Your task to perform on an android device: manage bookmarks in the chrome app Image 0: 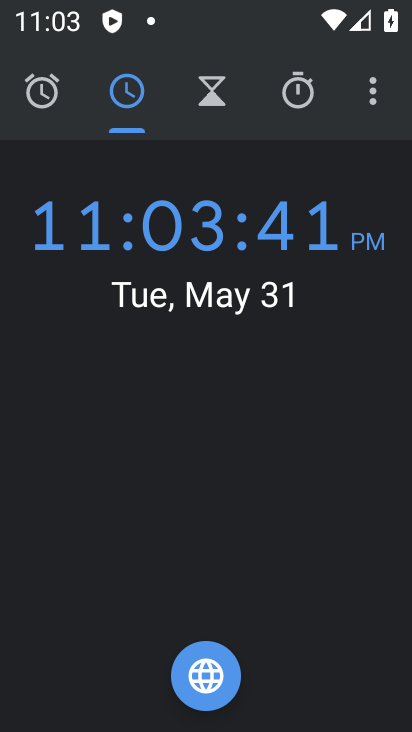
Step 0: press home button
Your task to perform on an android device: manage bookmarks in the chrome app Image 1: 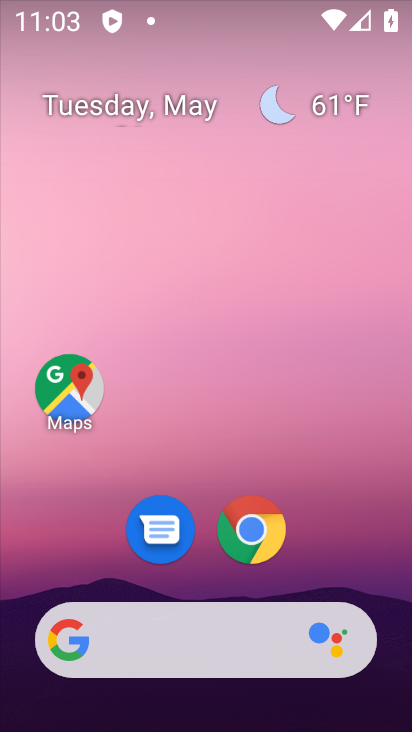
Step 1: click (252, 542)
Your task to perform on an android device: manage bookmarks in the chrome app Image 2: 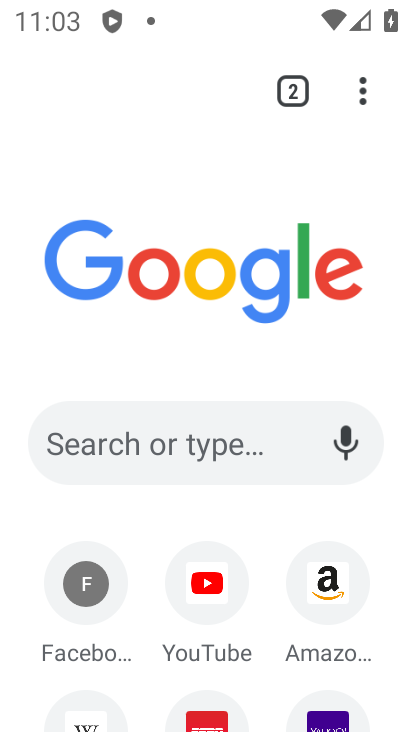
Step 2: click (361, 92)
Your task to perform on an android device: manage bookmarks in the chrome app Image 3: 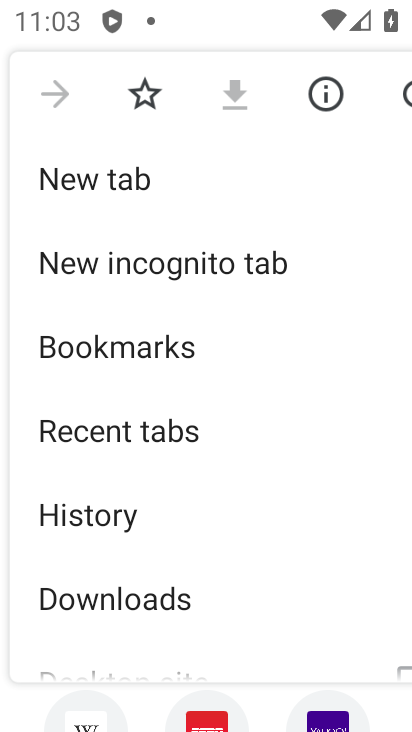
Step 3: click (145, 352)
Your task to perform on an android device: manage bookmarks in the chrome app Image 4: 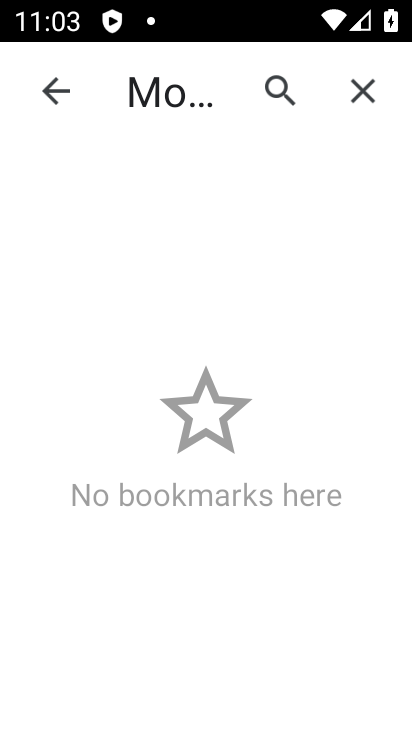
Step 4: click (200, 397)
Your task to perform on an android device: manage bookmarks in the chrome app Image 5: 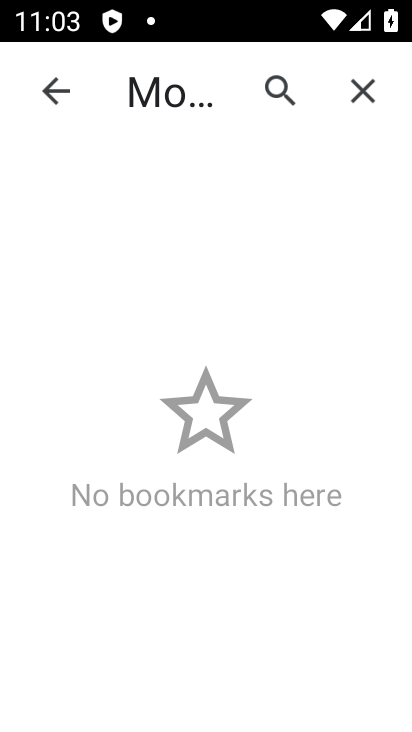
Step 5: click (200, 397)
Your task to perform on an android device: manage bookmarks in the chrome app Image 6: 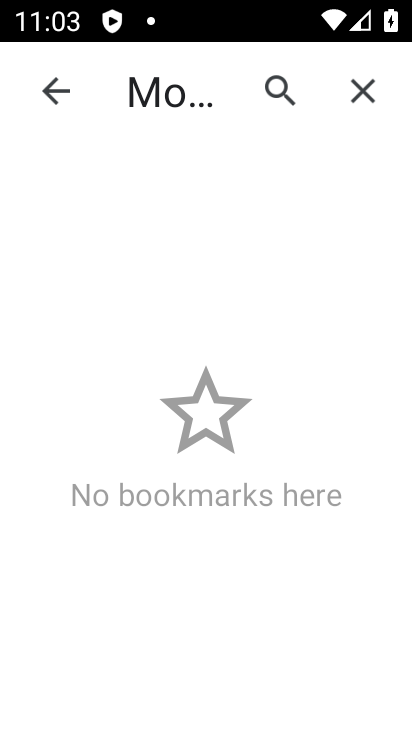
Step 6: click (200, 397)
Your task to perform on an android device: manage bookmarks in the chrome app Image 7: 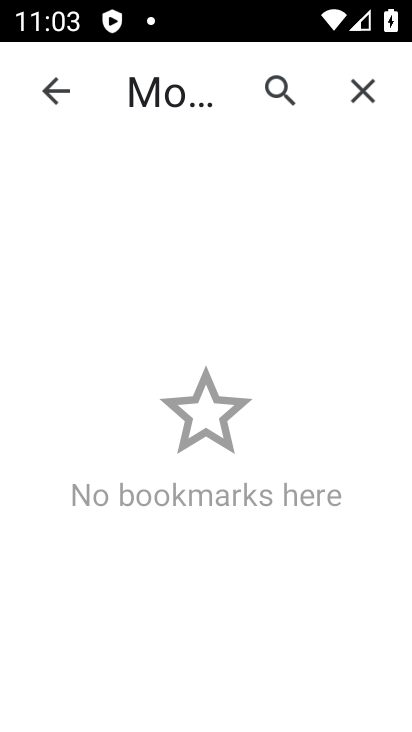
Step 7: click (200, 397)
Your task to perform on an android device: manage bookmarks in the chrome app Image 8: 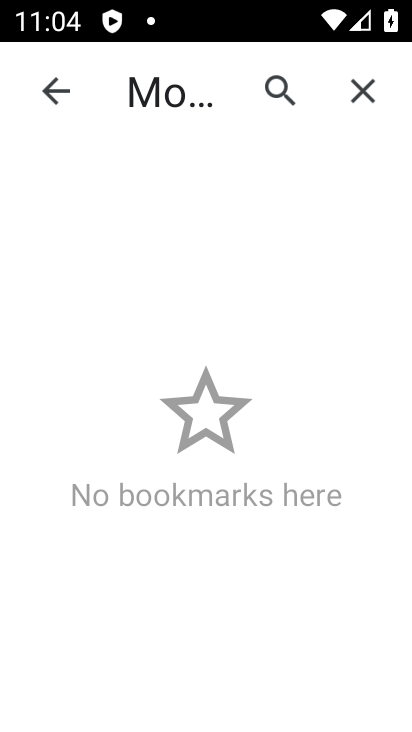
Step 8: task complete